Your task to perform on an android device: find photos in the google photos app Image 0: 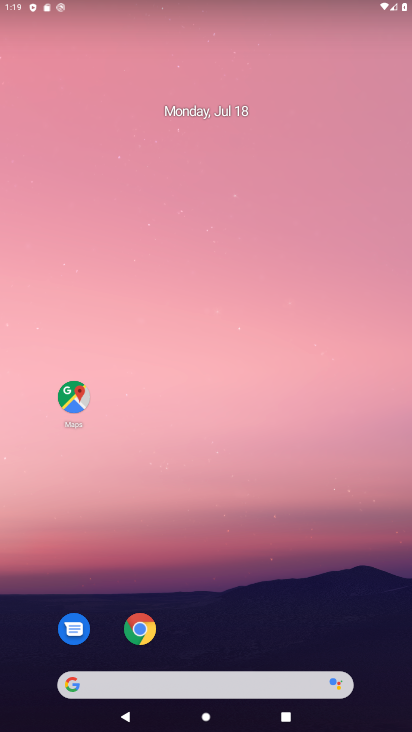
Step 0: click (277, 0)
Your task to perform on an android device: find photos in the google photos app Image 1: 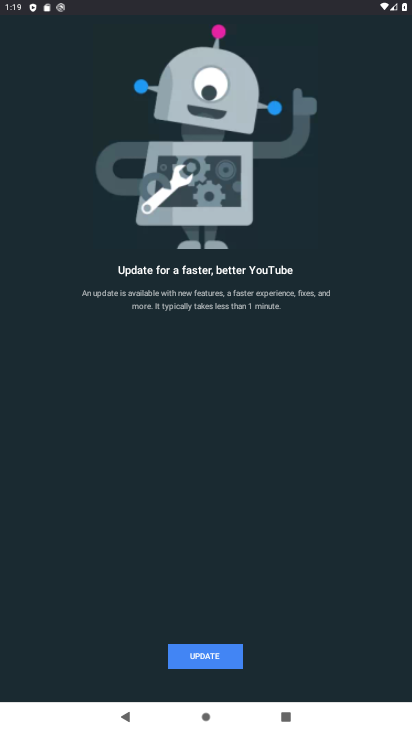
Step 1: press home button
Your task to perform on an android device: find photos in the google photos app Image 2: 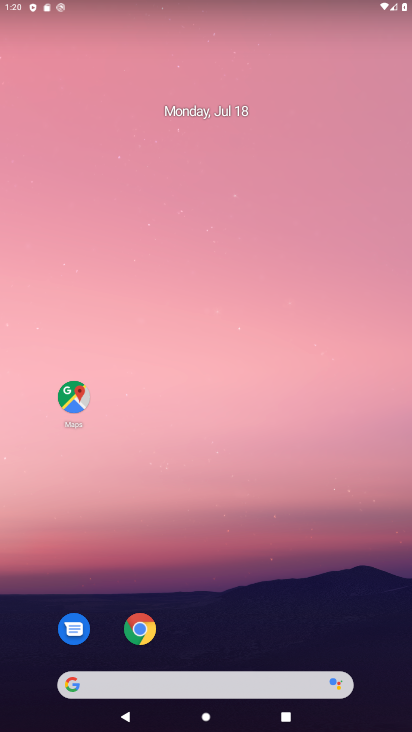
Step 2: drag from (213, 646) to (249, 51)
Your task to perform on an android device: find photos in the google photos app Image 3: 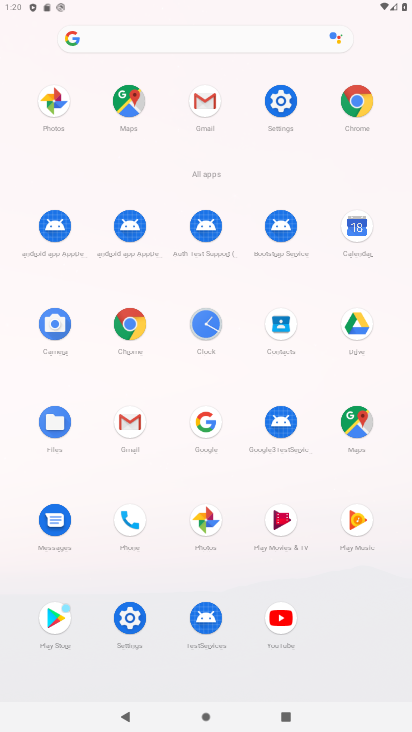
Step 3: click (204, 517)
Your task to perform on an android device: find photos in the google photos app Image 4: 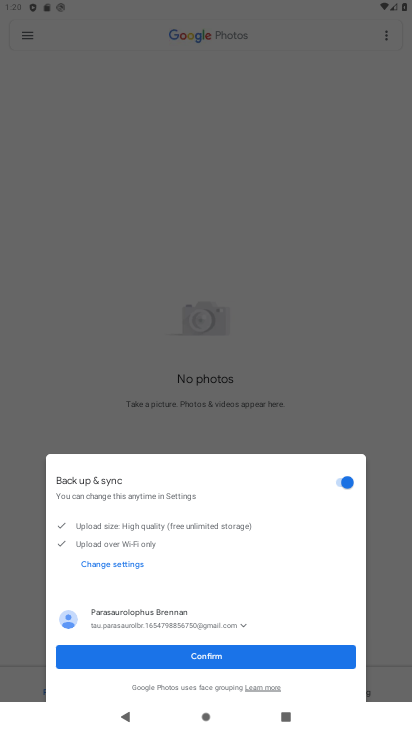
Step 4: click (209, 653)
Your task to perform on an android device: find photos in the google photos app Image 5: 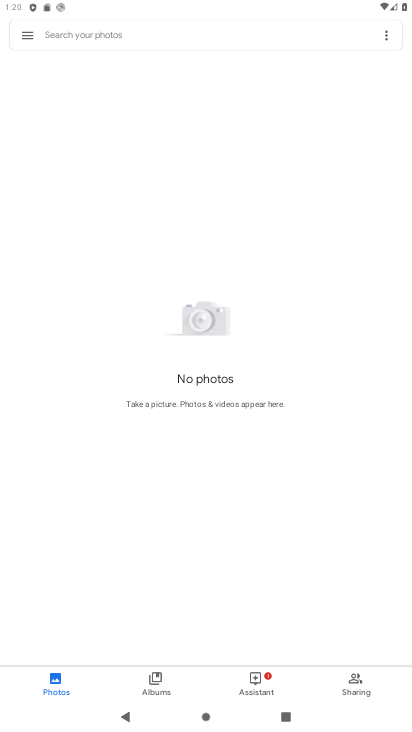
Step 5: task complete